Your task to perform on an android device: Go to wifi settings Image 0: 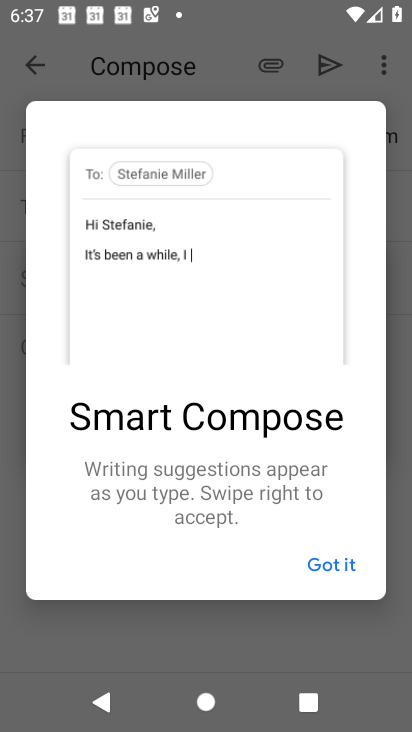
Step 0: press home button
Your task to perform on an android device: Go to wifi settings Image 1: 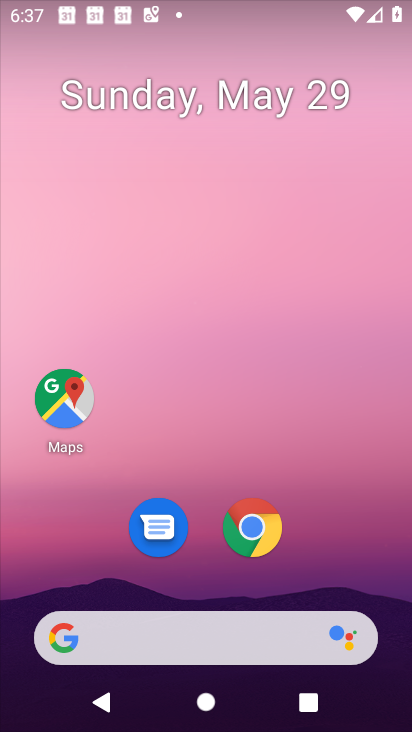
Step 1: drag from (317, 560) to (223, 61)
Your task to perform on an android device: Go to wifi settings Image 2: 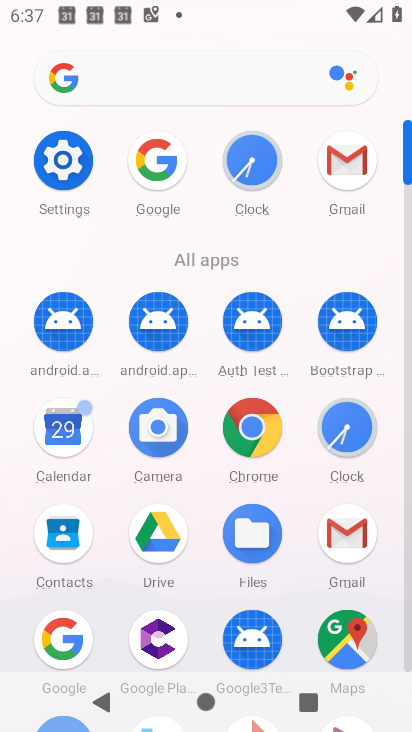
Step 2: click (54, 167)
Your task to perform on an android device: Go to wifi settings Image 3: 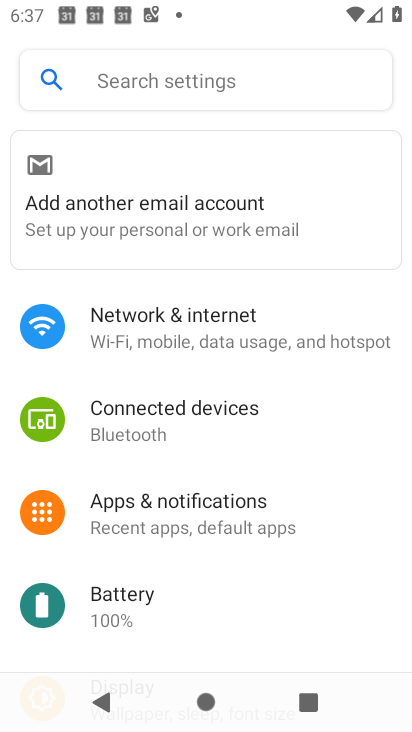
Step 3: click (246, 327)
Your task to perform on an android device: Go to wifi settings Image 4: 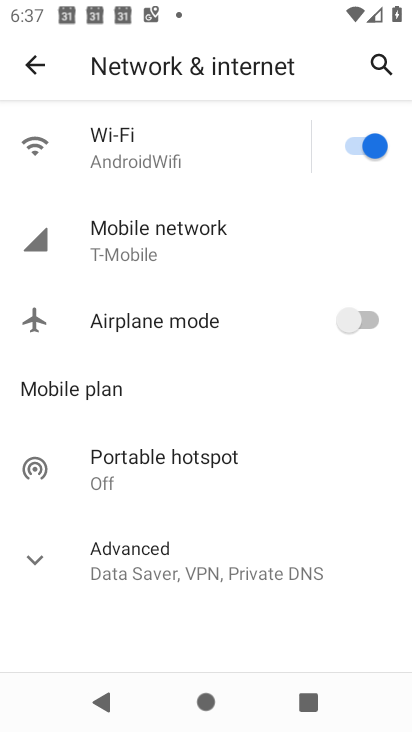
Step 4: click (182, 130)
Your task to perform on an android device: Go to wifi settings Image 5: 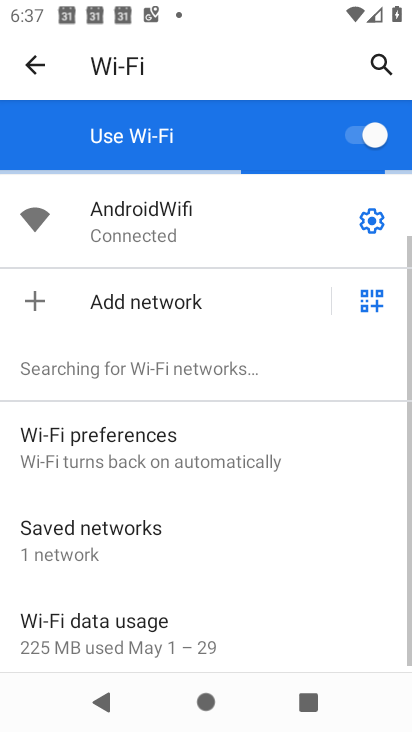
Step 5: task complete